Your task to perform on an android device: Open ESPN.com Image 0: 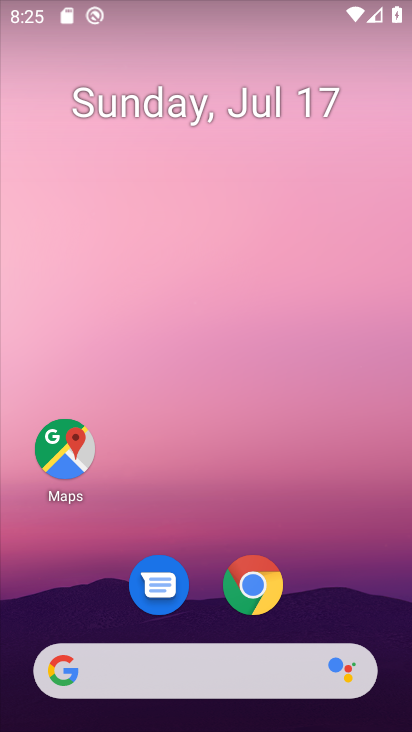
Step 0: click (219, 684)
Your task to perform on an android device: Open ESPN.com Image 1: 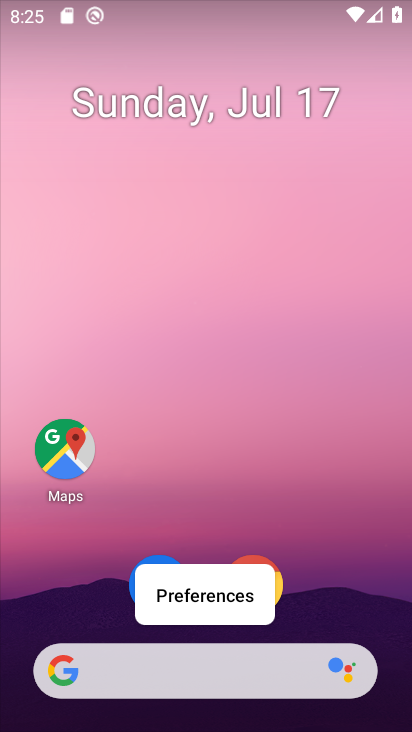
Step 1: click (219, 686)
Your task to perform on an android device: Open ESPN.com Image 2: 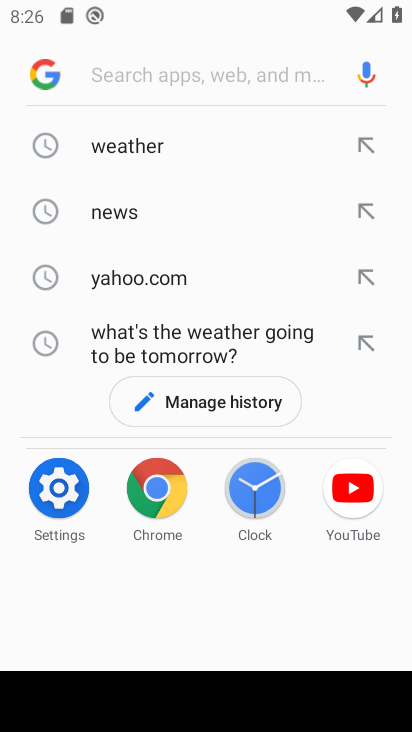
Step 2: type "espn.com"
Your task to perform on an android device: Open ESPN.com Image 3: 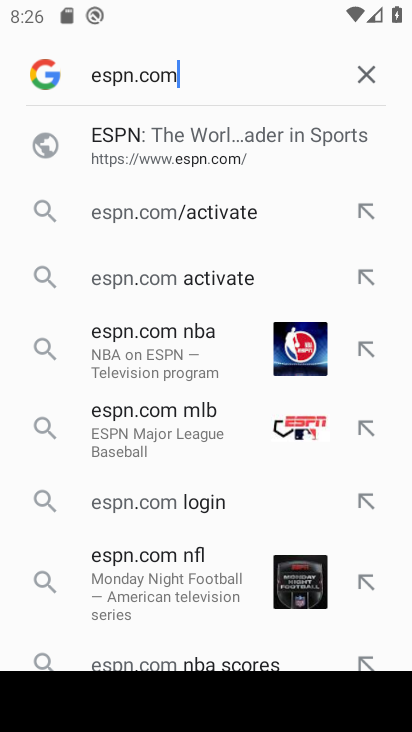
Step 3: click (175, 136)
Your task to perform on an android device: Open ESPN.com Image 4: 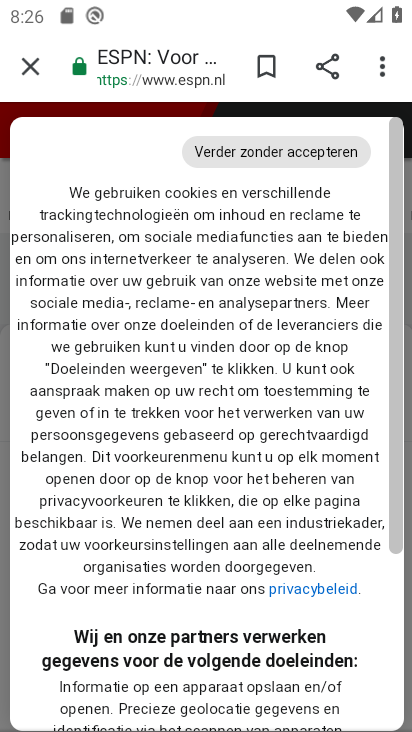
Step 4: click (268, 141)
Your task to perform on an android device: Open ESPN.com Image 5: 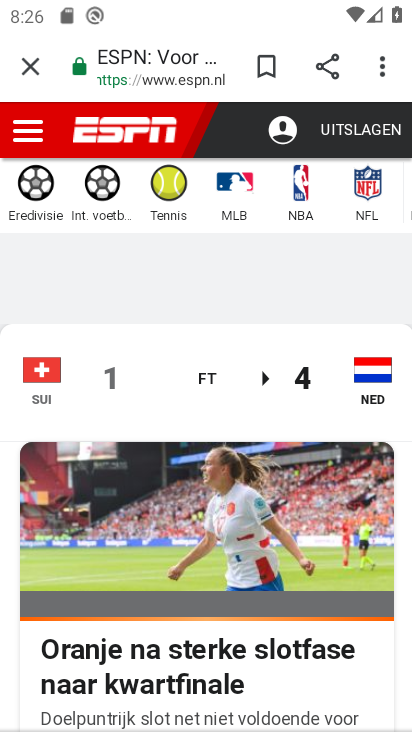
Step 5: task complete